Your task to perform on an android device: add a contact Image 0: 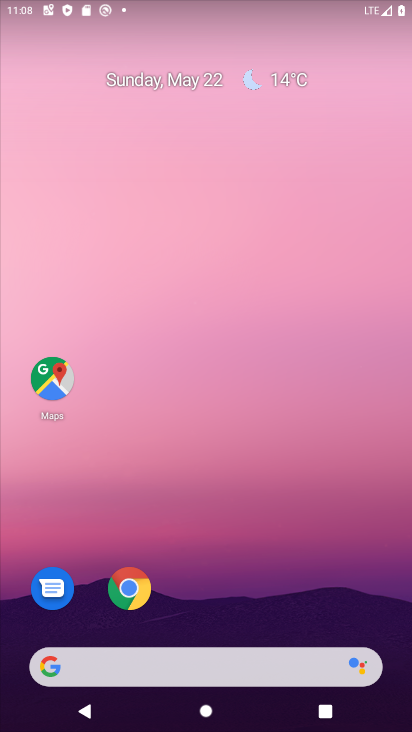
Step 0: drag from (212, 630) to (241, 194)
Your task to perform on an android device: add a contact Image 1: 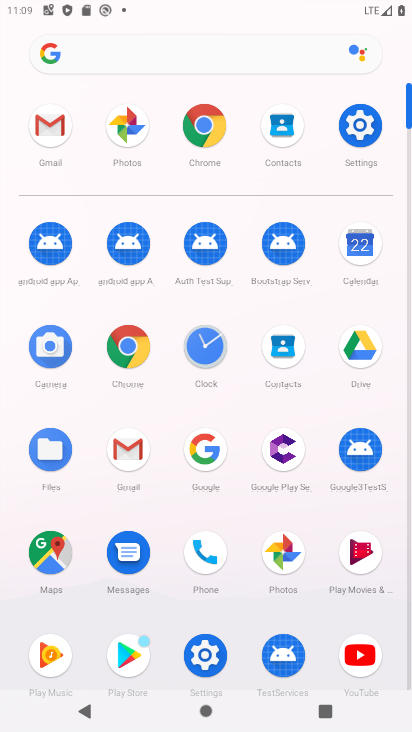
Step 1: click (284, 360)
Your task to perform on an android device: add a contact Image 2: 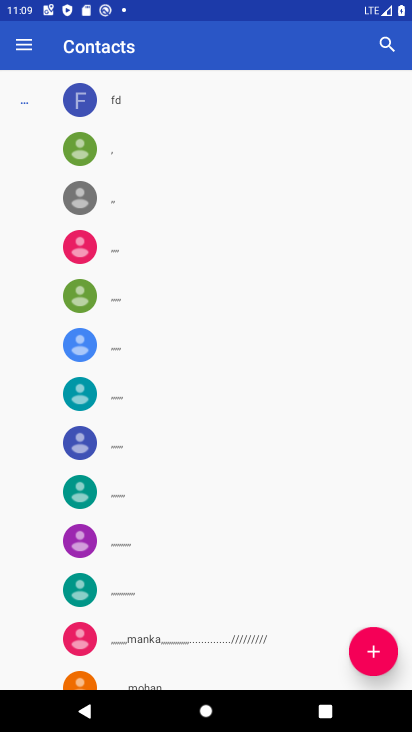
Step 2: click (379, 644)
Your task to perform on an android device: add a contact Image 3: 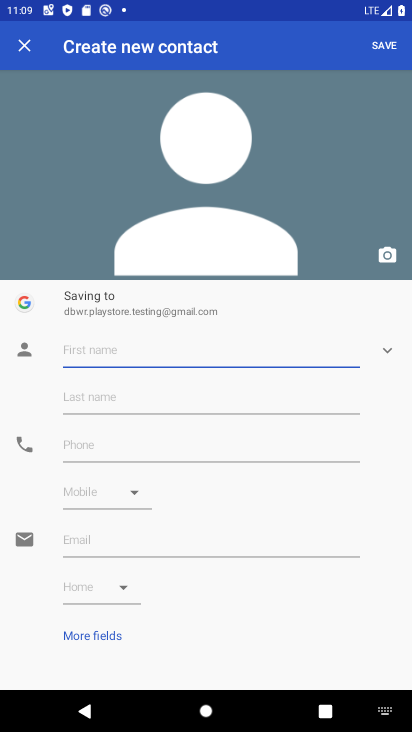
Step 3: type ""
Your task to perform on an android device: add a contact Image 4: 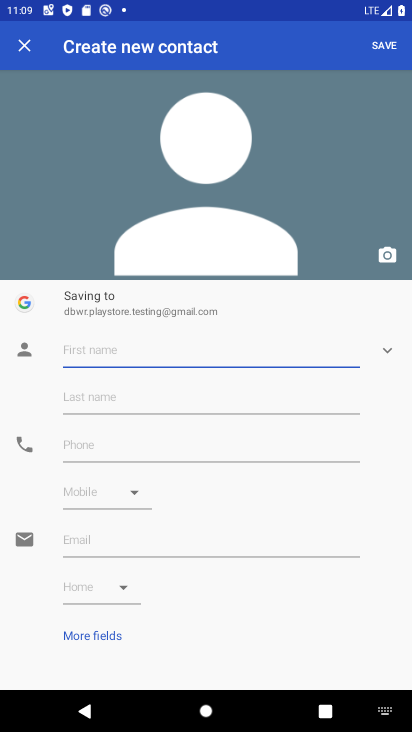
Step 4: type "fhdfh"
Your task to perform on an android device: add a contact Image 5: 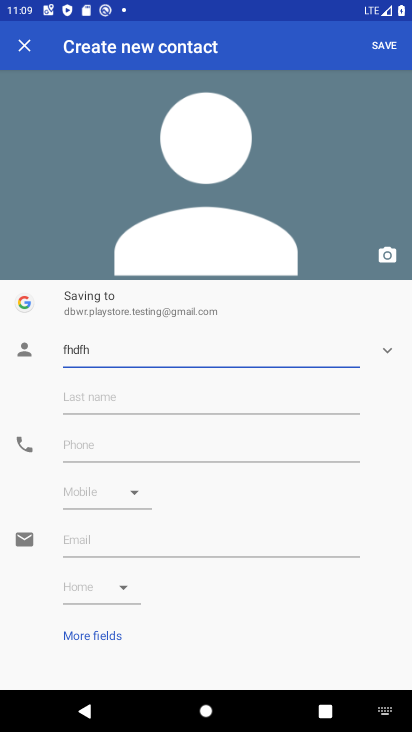
Step 5: click (102, 438)
Your task to perform on an android device: add a contact Image 6: 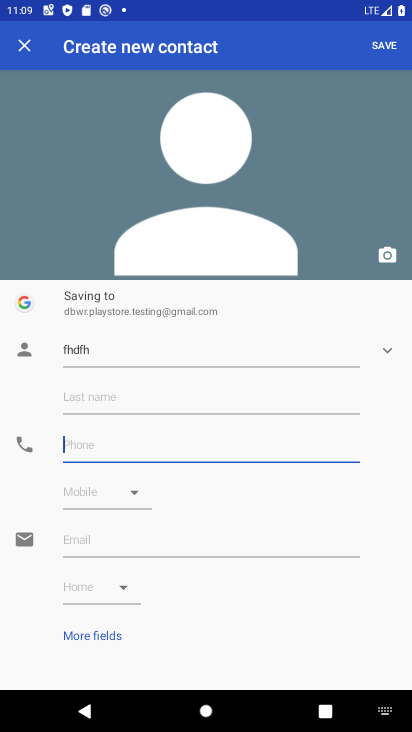
Step 6: type "8653756456"
Your task to perform on an android device: add a contact Image 7: 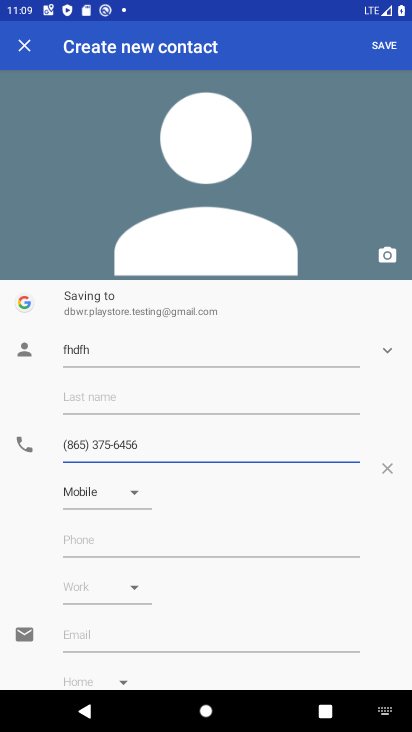
Step 7: click (372, 41)
Your task to perform on an android device: add a contact Image 8: 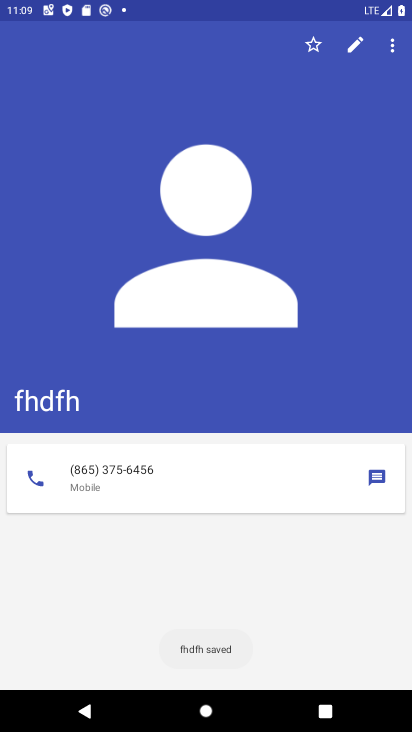
Step 8: task complete